Your task to perform on an android device: change notification settings in the gmail app Image 0: 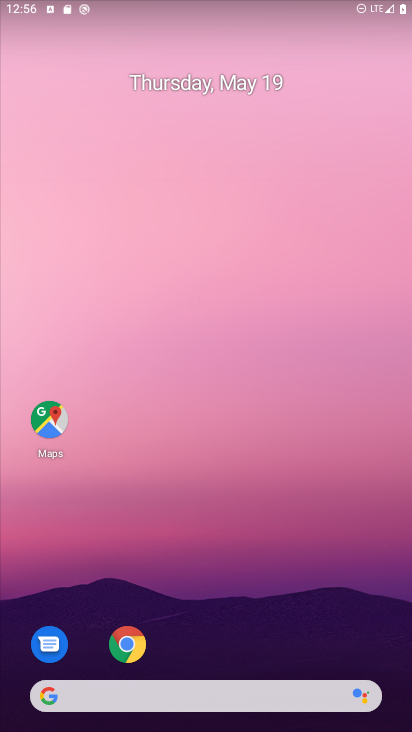
Step 0: drag from (340, 619) to (156, 27)
Your task to perform on an android device: change notification settings in the gmail app Image 1: 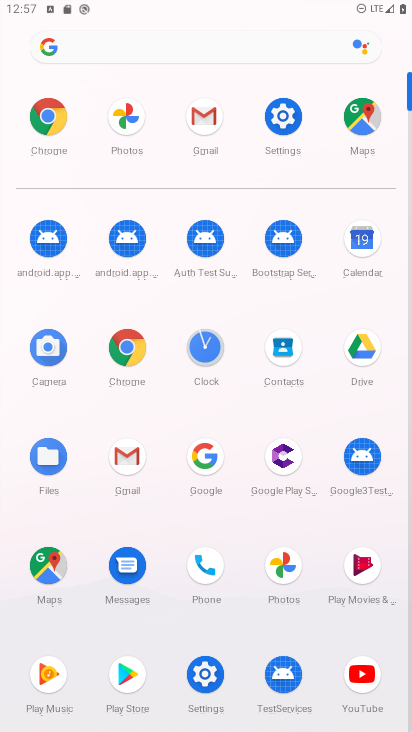
Step 1: click (130, 466)
Your task to perform on an android device: change notification settings in the gmail app Image 2: 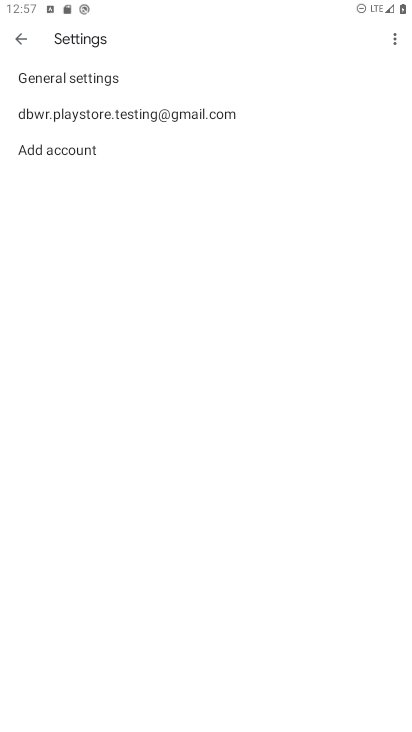
Step 2: click (256, 118)
Your task to perform on an android device: change notification settings in the gmail app Image 3: 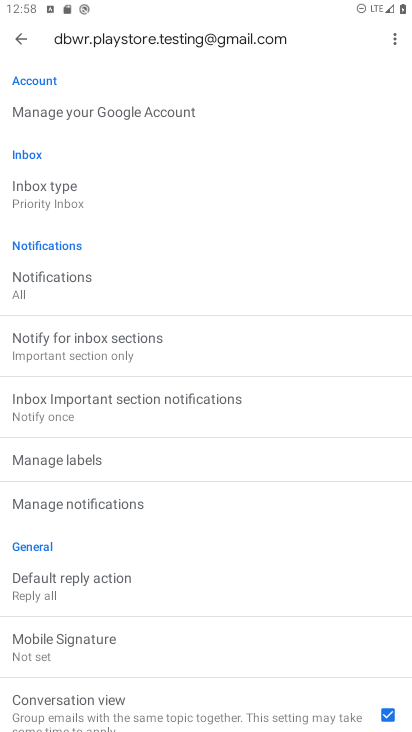
Step 3: click (115, 286)
Your task to perform on an android device: change notification settings in the gmail app Image 4: 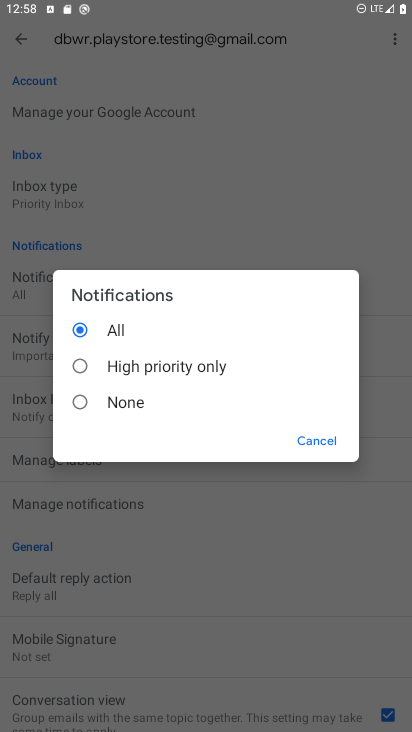
Step 4: click (118, 403)
Your task to perform on an android device: change notification settings in the gmail app Image 5: 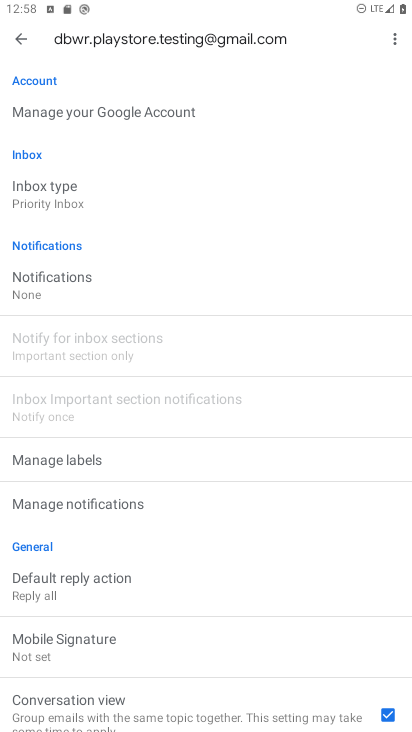
Step 5: task complete